Your task to perform on an android device: Is it going to rain today? Image 0: 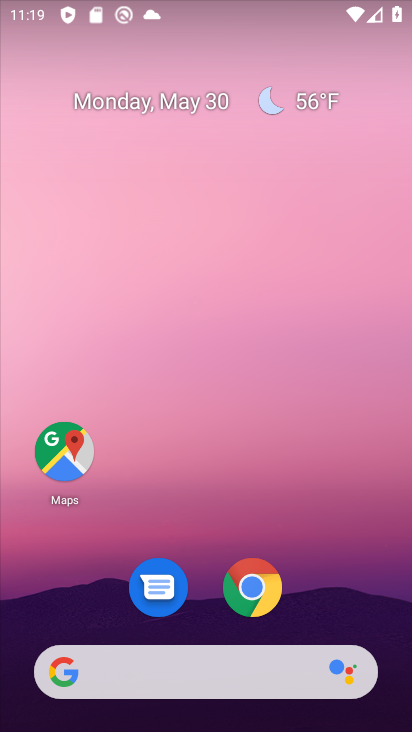
Step 0: click (205, 668)
Your task to perform on an android device: Is it going to rain today? Image 1: 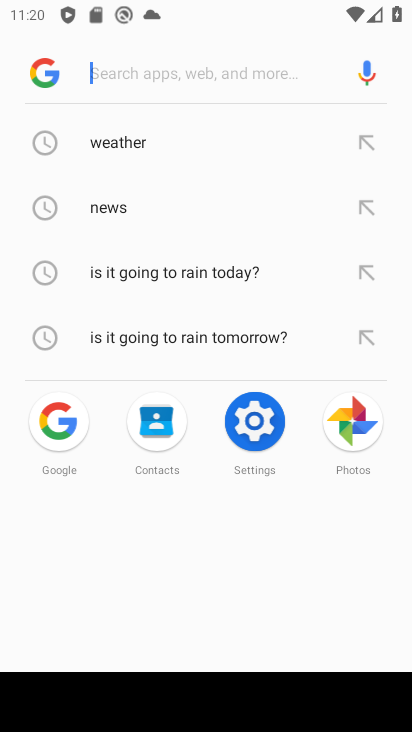
Step 1: type "is it going to rain today"
Your task to perform on an android device: Is it going to rain today? Image 2: 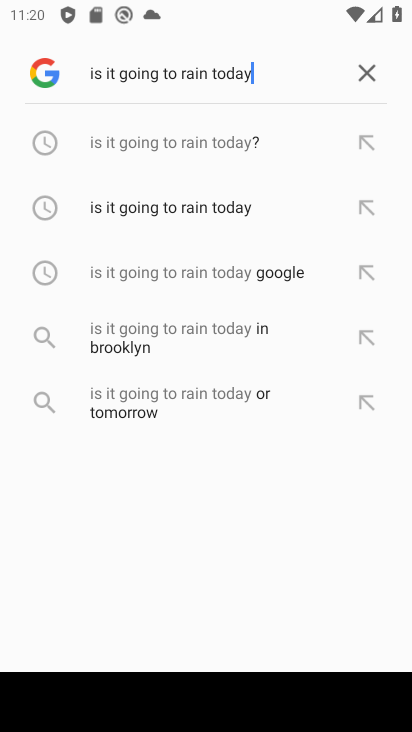
Step 2: click (198, 145)
Your task to perform on an android device: Is it going to rain today? Image 3: 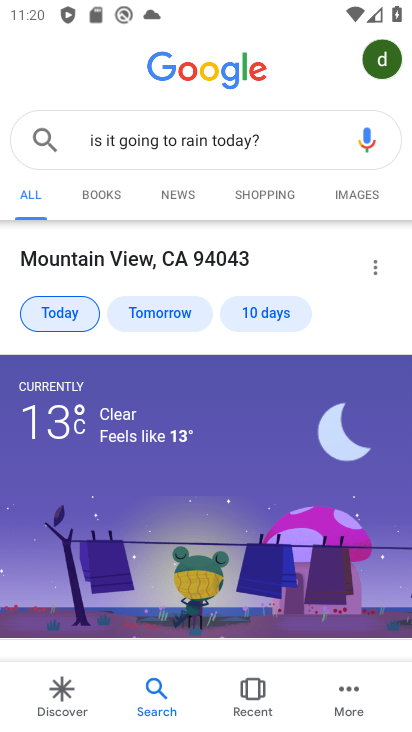
Step 3: task complete